Your task to perform on an android device: open sync settings in chrome Image 0: 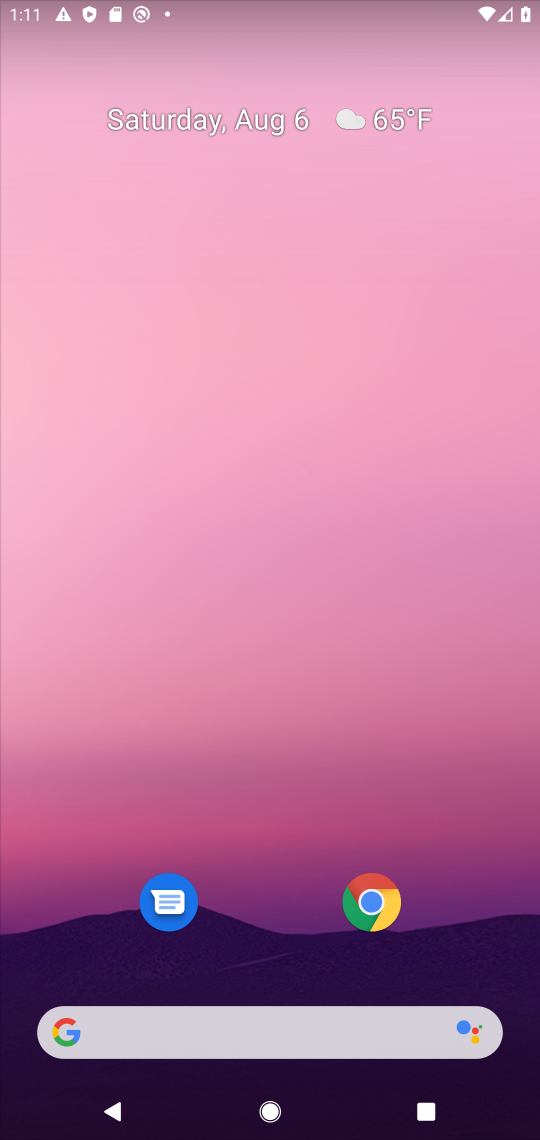
Step 0: click (364, 908)
Your task to perform on an android device: open sync settings in chrome Image 1: 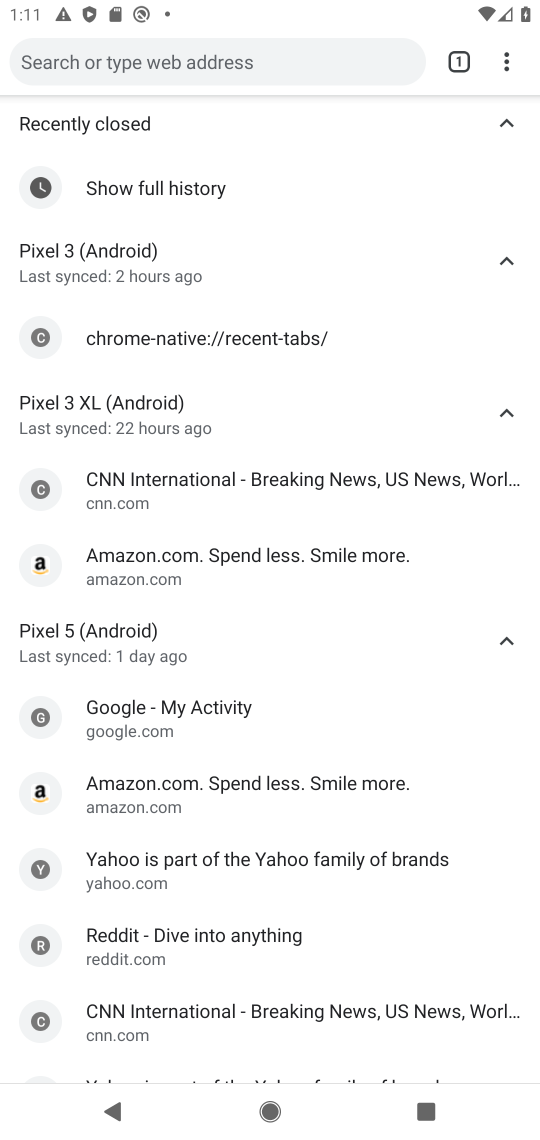
Step 1: click (502, 57)
Your task to perform on an android device: open sync settings in chrome Image 2: 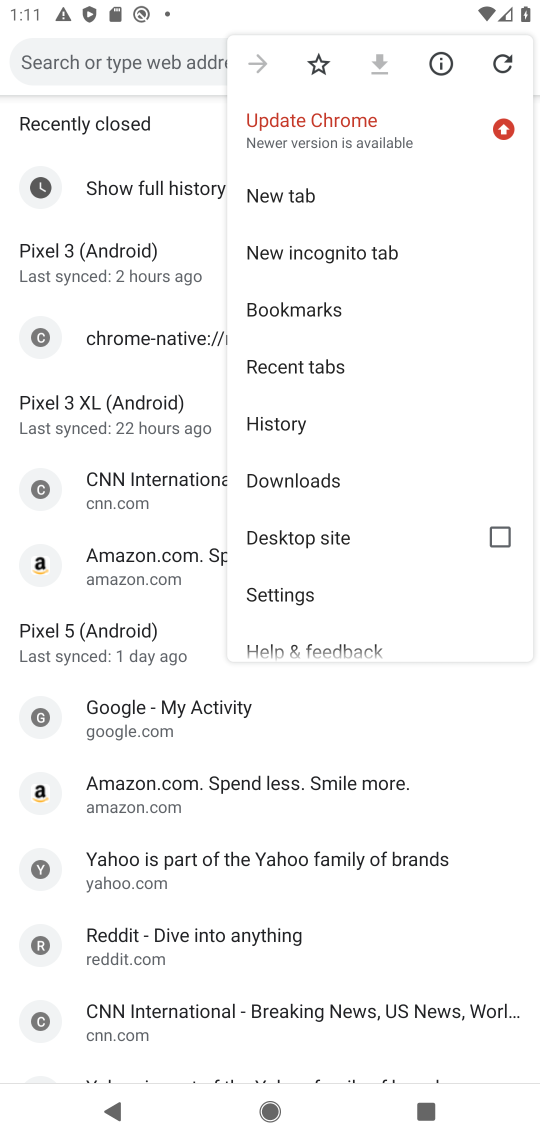
Step 2: click (290, 585)
Your task to perform on an android device: open sync settings in chrome Image 3: 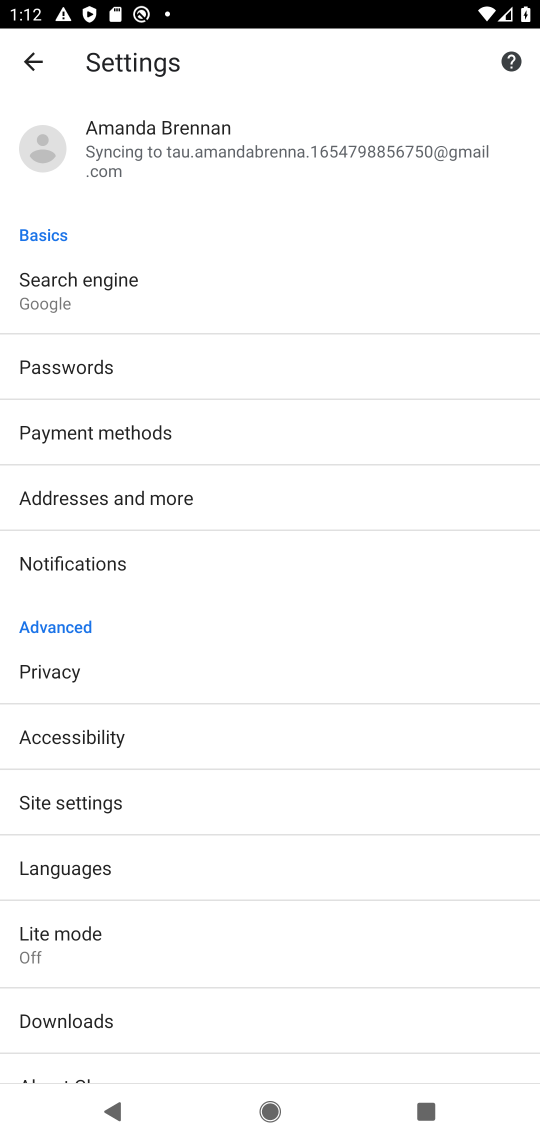
Step 3: click (122, 132)
Your task to perform on an android device: open sync settings in chrome Image 4: 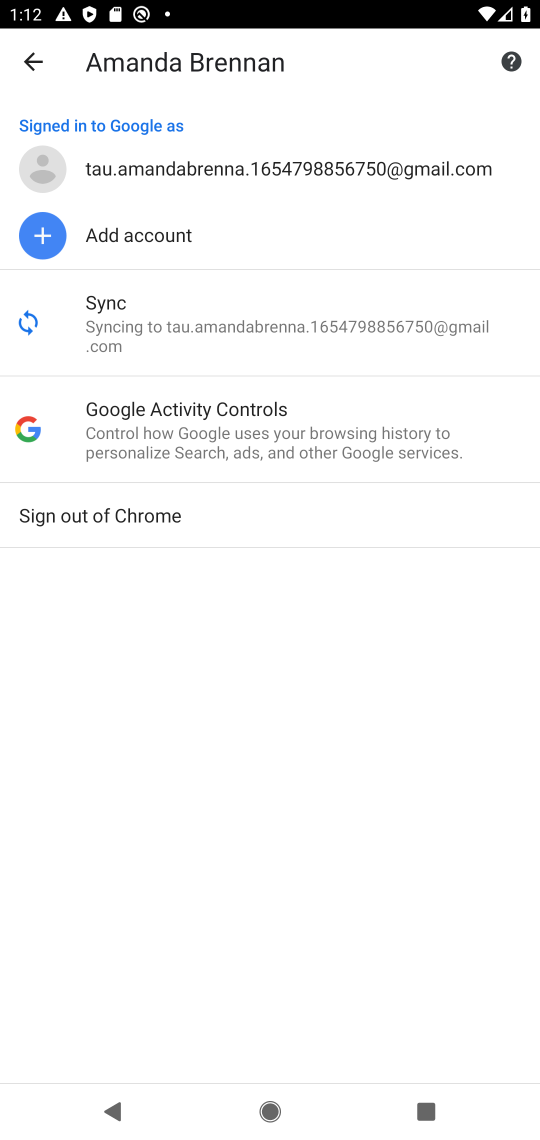
Step 4: click (117, 308)
Your task to perform on an android device: open sync settings in chrome Image 5: 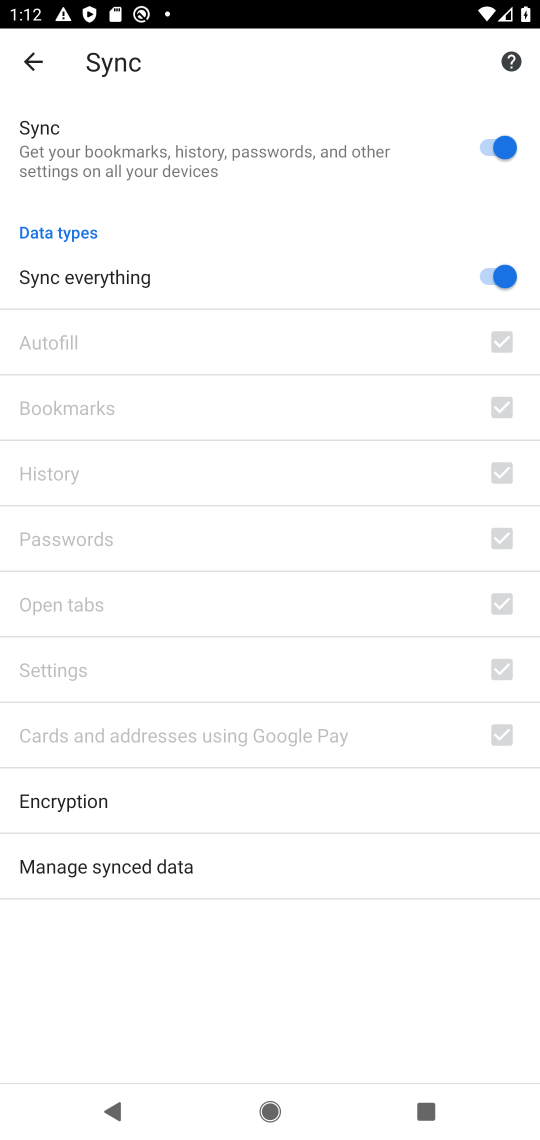
Step 5: task complete